Your task to perform on an android device: turn on notifications settings in the gmail app Image 0: 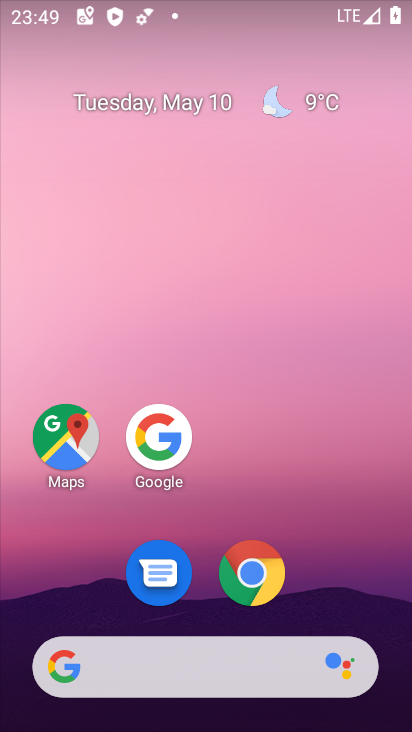
Step 0: drag from (196, 650) to (269, 48)
Your task to perform on an android device: turn on notifications settings in the gmail app Image 1: 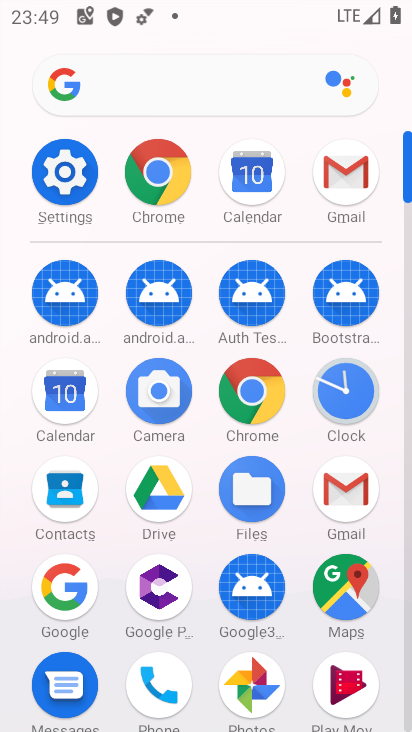
Step 1: click (354, 186)
Your task to perform on an android device: turn on notifications settings in the gmail app Image 2: 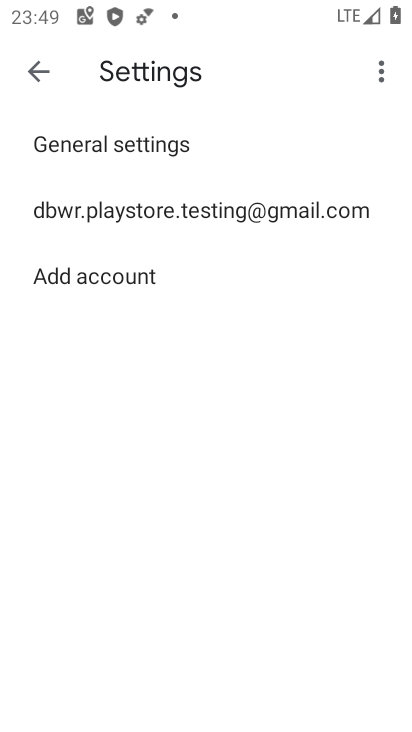
Step 2: click (217, 209)
Your task to perform on an android device: turn on notifications settings in the gmail app Image 3: 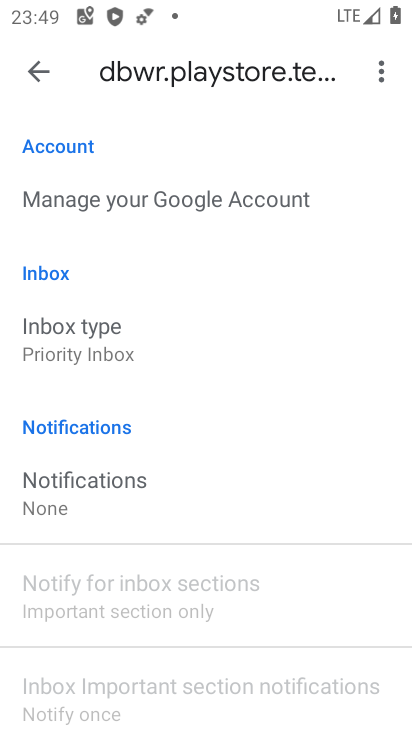
Step 3: click (94, 504)
Your task to perform on an android device: turn on notifications settings in the gmail app Image 4: 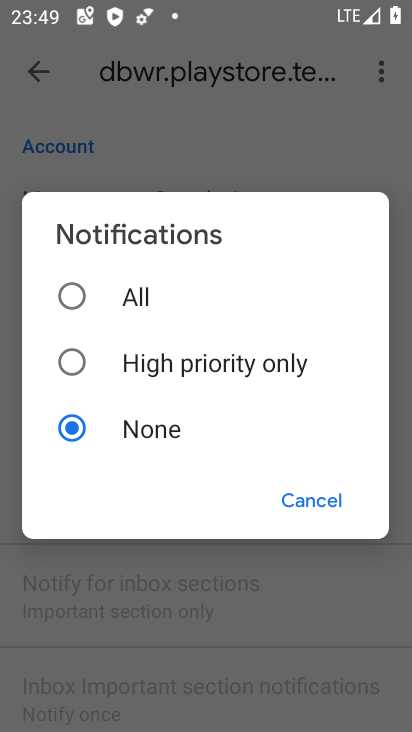
Step 4: click (70, 290)
Your task to perform on an android device: turn on notifications settings in the gmail app Image 5: 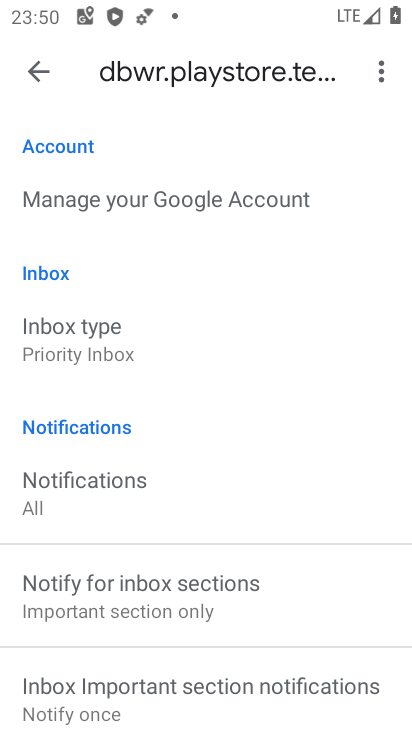
Step 5: task complete